Your task to perform on an android device: open the mobile data screen to see how much data has been used Image 0: 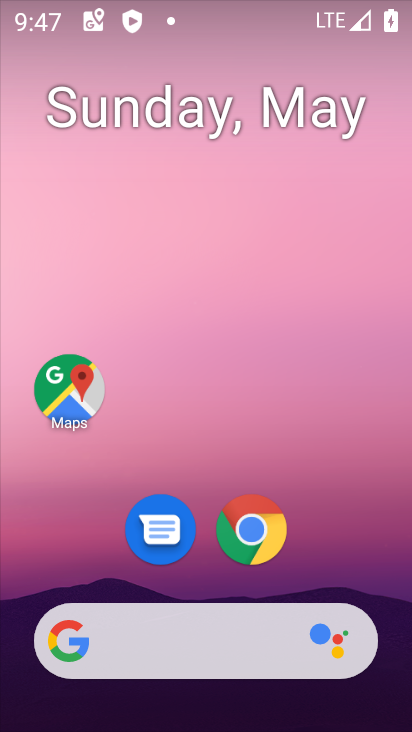
Step 0: drag from (385, 551) to (385, 168)
Your task to perform on an android device: open the mobile data screen to see how much data has been used Image 1: 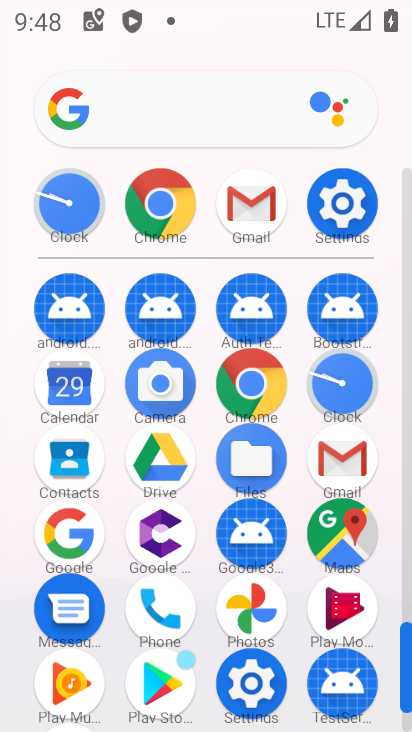
Step 1: click (352, 207)
Your task to perform on an android device: open the mobile data screen to see how much data has been used Image 2: 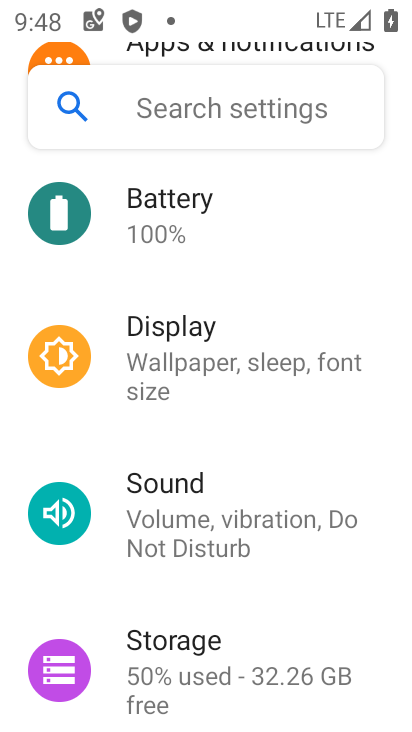
Step 2: drag from (215, 577) to (222, 687)
Your task to perform on an android device: open the mobile data screen to see how much data has been used Image 3: 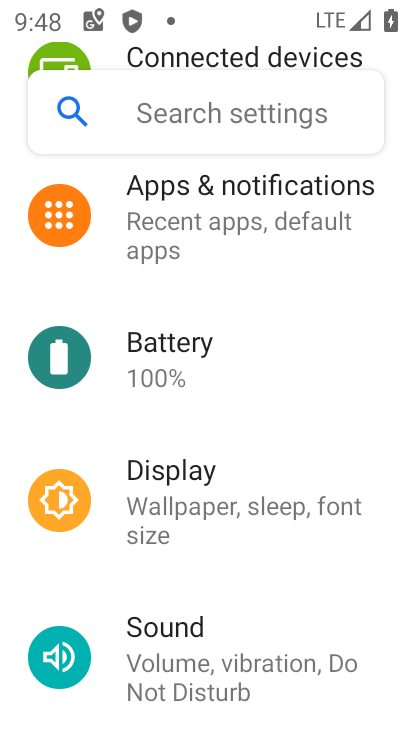
Step 3: drag from (273, 364) to (307, 683)
Your task to perform on an android device: open the mobile data screen to see how much data has been used Image 4: 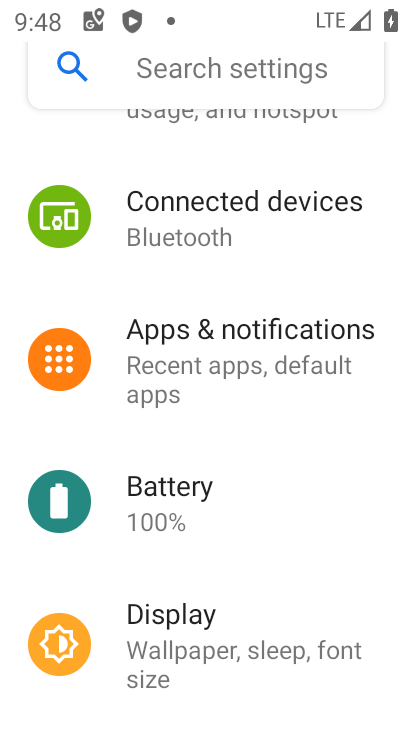
Step 4: drag from (221, 213) to (303, 507)
Your task to perform on an android device: open the mobile data screen to see how much data has been used Image 5: 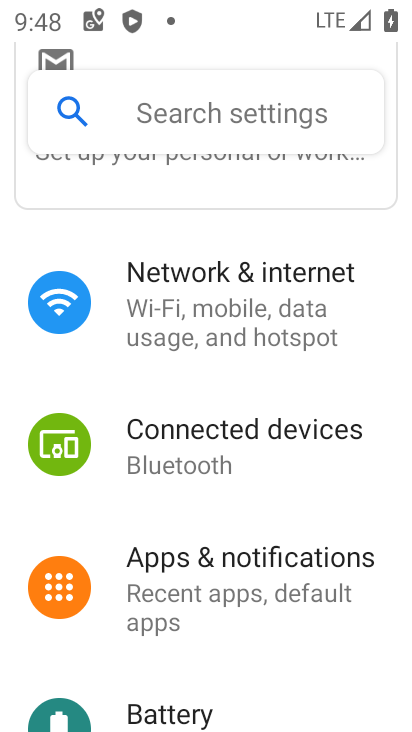
Step 5: click (240, 325)
Your task to perform on an android device: open the mobile data screen to see how much data has been used Image 6: 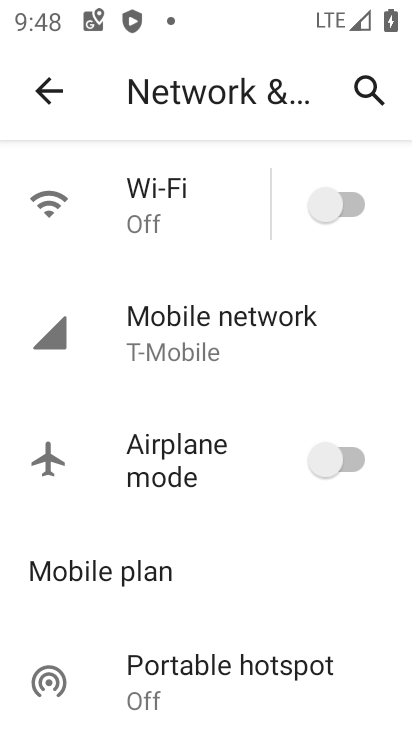
Step 6: click (234, 351)
Your task to perform on an android device: open the mobile data screen to see how much data has been used Image 7: 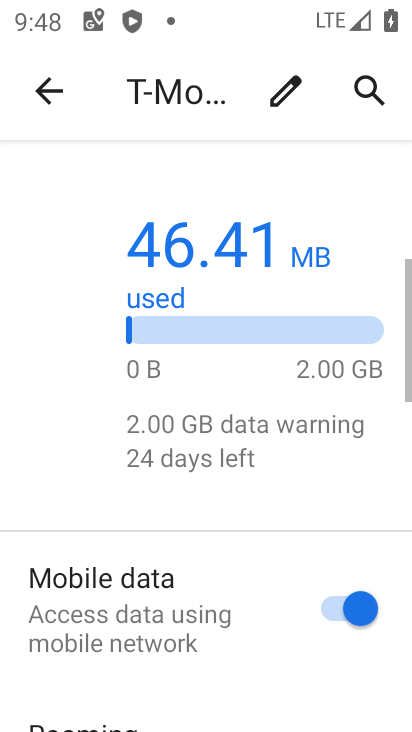
Step 7: task complete